Your task to perform on an android device: Open eBay Image 0: 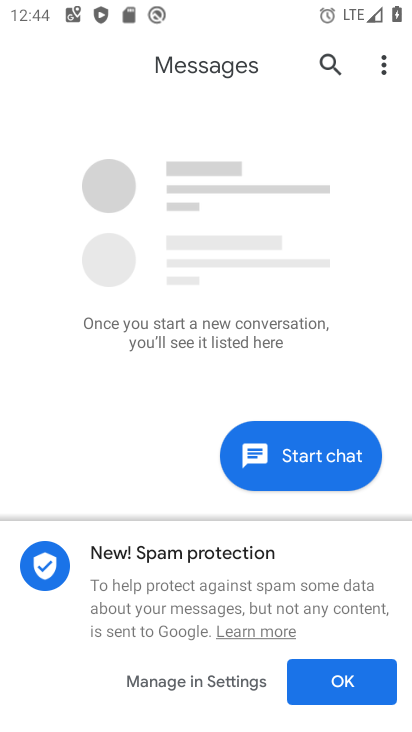
Step 0: press home button
Your task to perform on an android device: Open eBay Image 1: 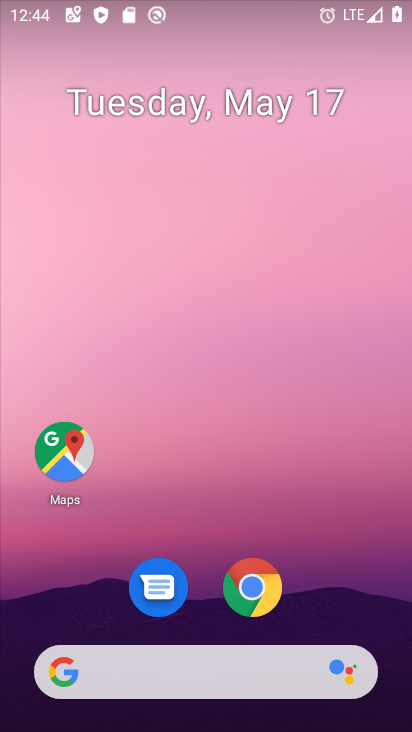
Step 1: drag from (364, 586) to (207, 25)
Your task to perform on an android device: Open eBay Image 2: 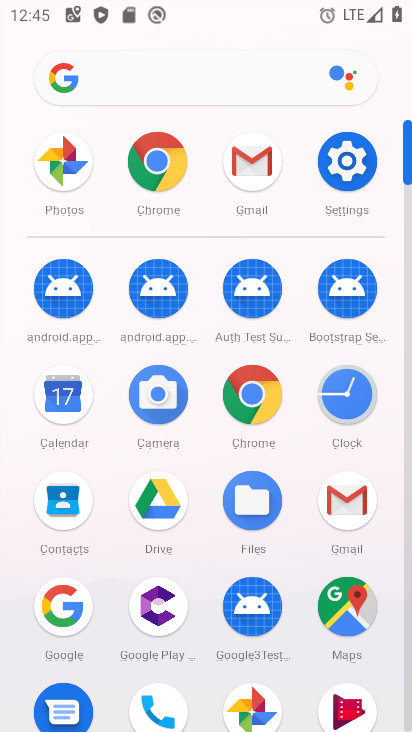
Step 2: click (251, 385)
Your task to perform on an android device: Open eBay Image 3: 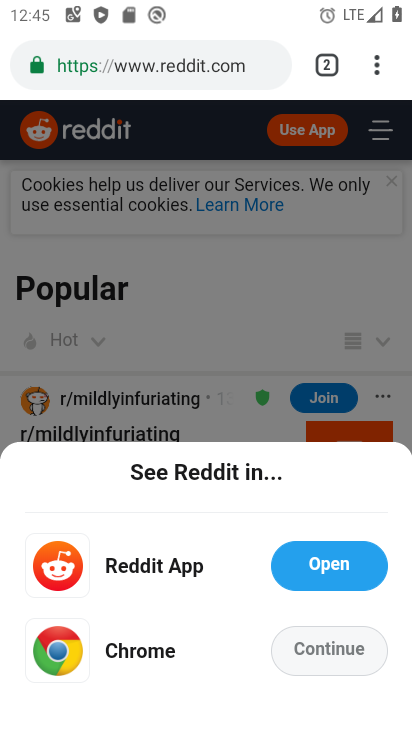
Step 3: press back button
Your task to perform on an android device: Open eBay Image 4: 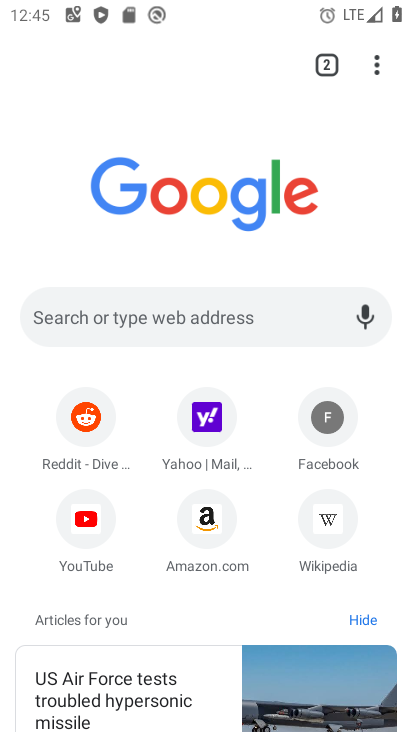
Step 4: click (141, 306)
Your task to perform on an android device: Open eBay Image 5: 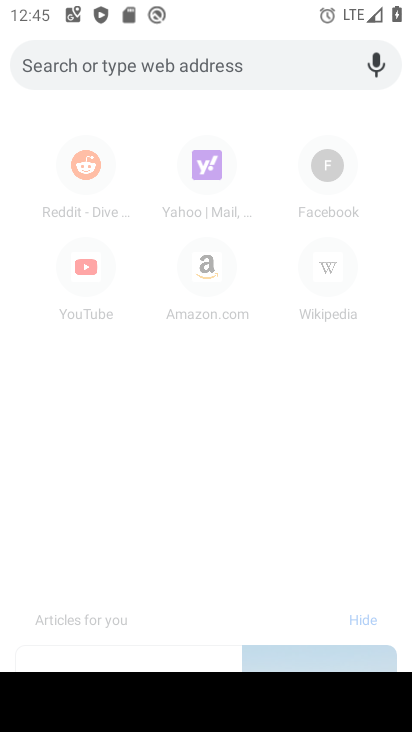
Step 5: type "ebay"
Your task to perform on an android device: Open eBay Image 6: 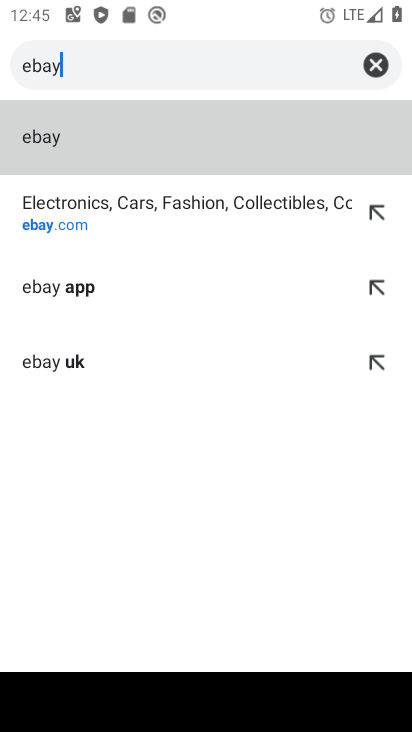
Step 6: click (214, 164)
Your task to perform on an android device: Open eBay Image 7: 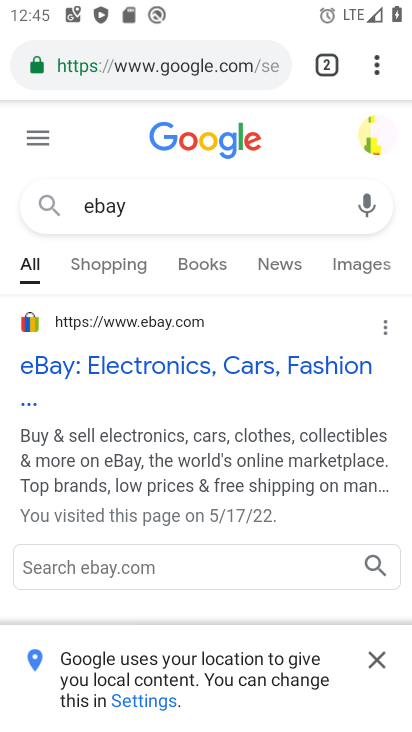
Step 7: task complete